Your task to perform on an android device: turn off priority inbox in the gmail app Image 0: 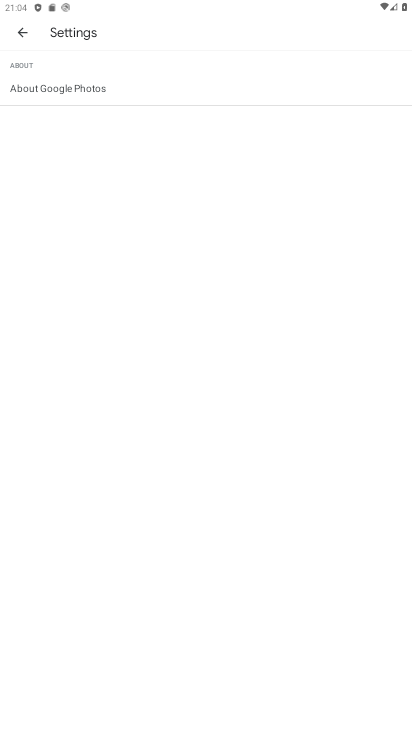
Step 0: press home button
Your task to perform on an android device: turn off priority inbox in the gmail app Image 1: 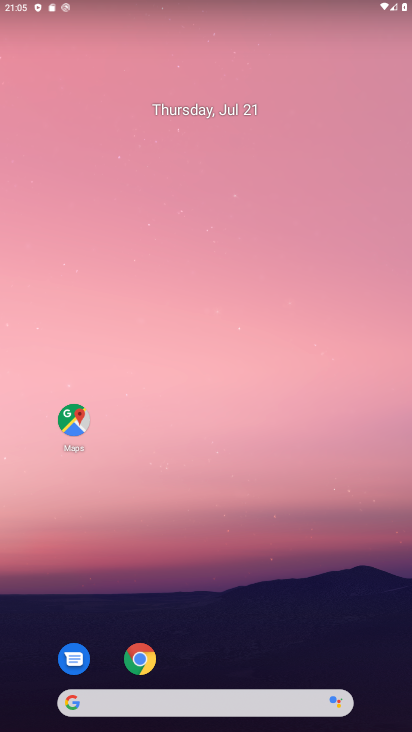
Step 1: drag from (118, 704) to (180, 171)
Your task to perform on an android device: turn off priority inbox in the gmail app Image 2: 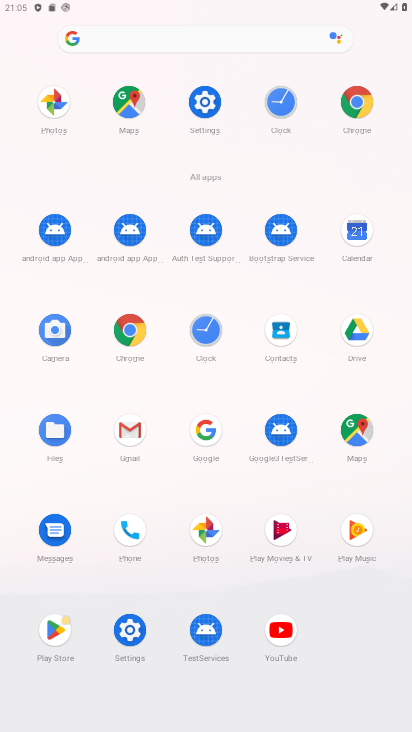
Step 2: click (133, 436)
Your task to perform on an android device: turn off priority inbox in the gmail app Image 3: 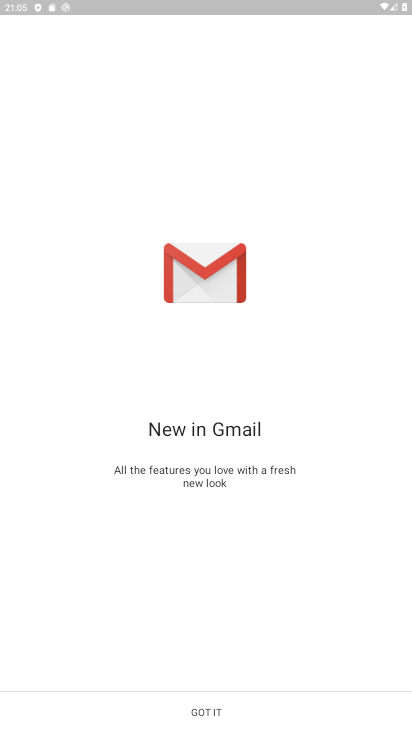
Step 3: click (278, 721)
Your task to perform on an android device: turn off priority inbox in the gmail app Image 4: 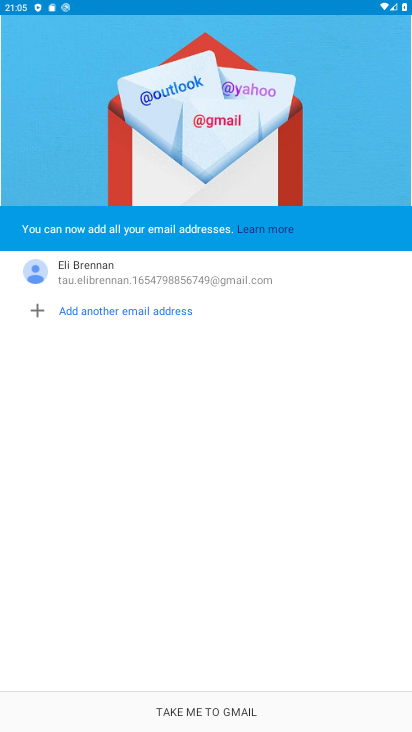
Step 4: click (271, 712)
Your task to perform on an android device: turn off priority inbox in the gmail app Image 5: 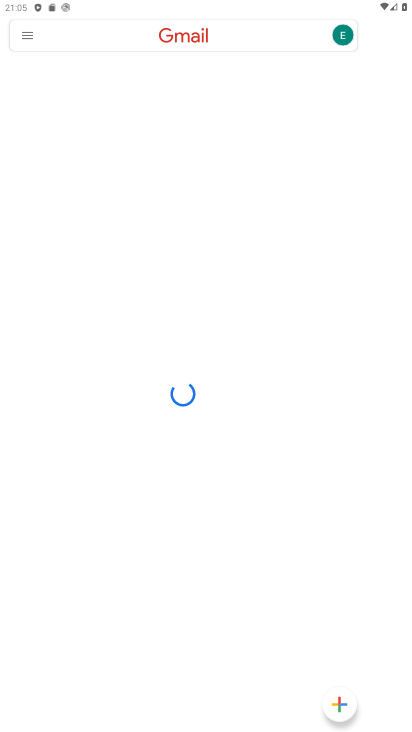
Step 5: click (23, 38)
Your task to perform on an android device: turn off priority inbox in the gmail app Image 6: 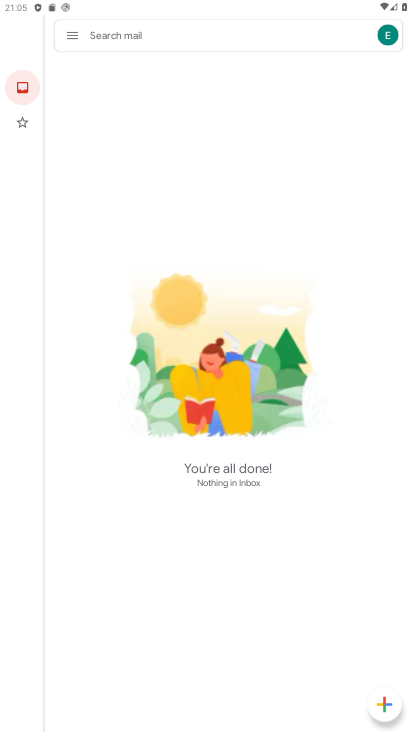
Step 6: click (67, 37)
Your task to perform on an android device: turn off priority inbox in the gmail app Image 7: 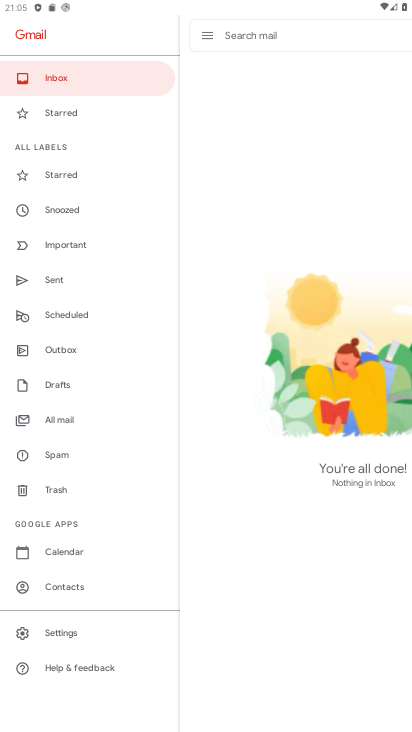
Step 7: click (70, 627)
Your task to perform on an android device: turn off priority inbox in the gmail app Image 8: 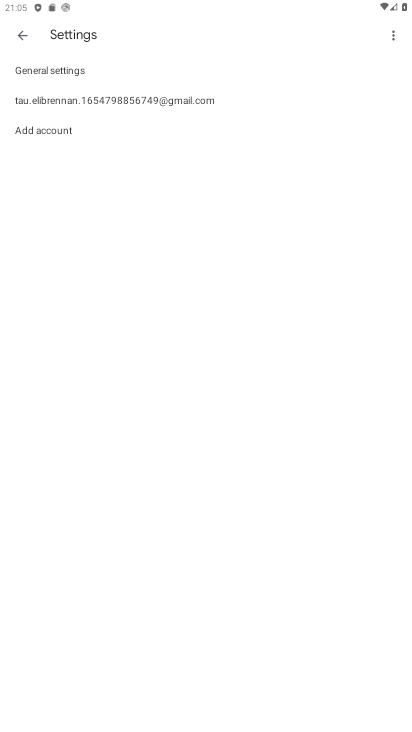
Step 8: click (193, 105)
Your task to perform on an android device: turn off priority inbox in the gmail app Image 9: 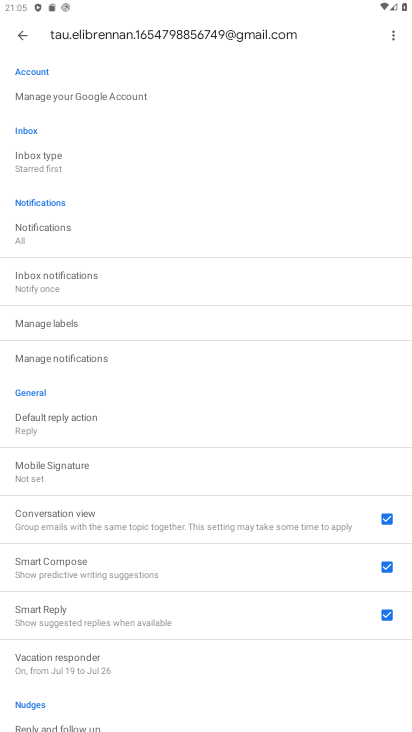
Step 9: click (45, 160)
Your task to perform on an android device: turn off priority inbox in the gmail app Image 10: 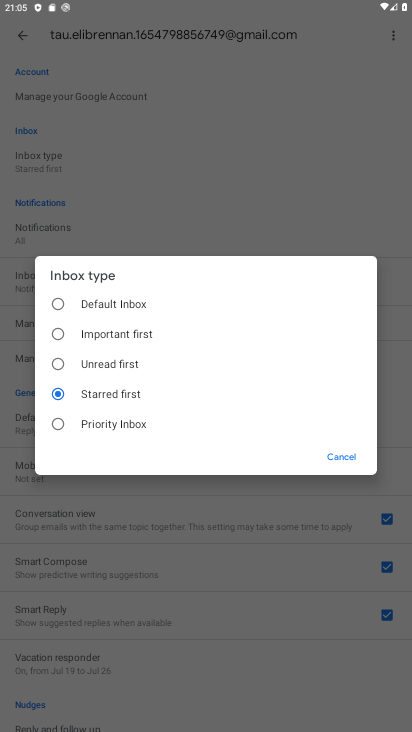
Step 10: task complete